Your task to perform on an android device: check out phone information Image 0: 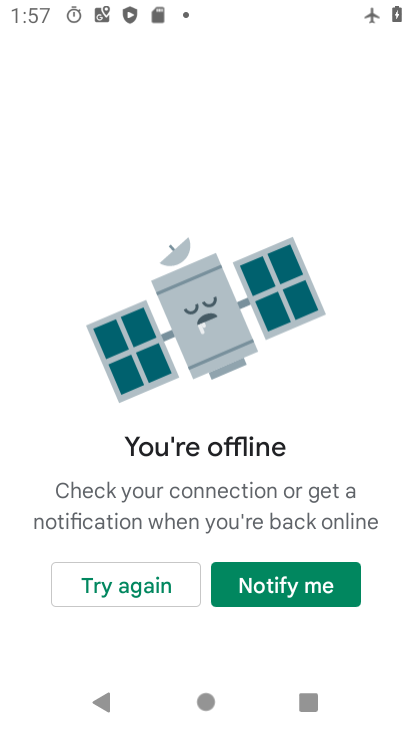
Step 0: press home button
Your task to perform on an android device: check out phone information Image 1: 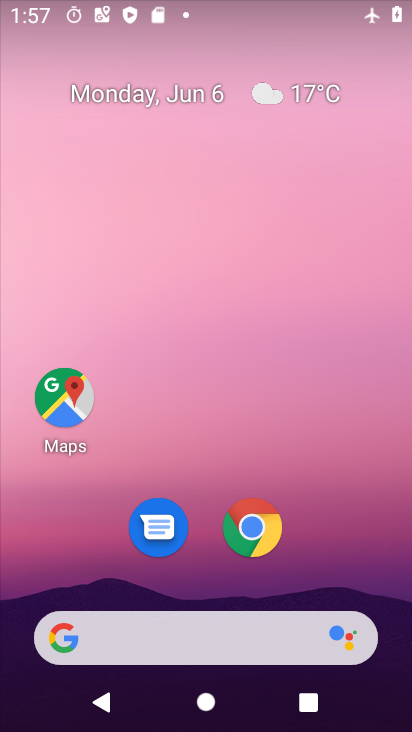
Step 1: drag from (235, 720) to (243, 0)
Your task to perform on an android device: check out phone information Image 2: 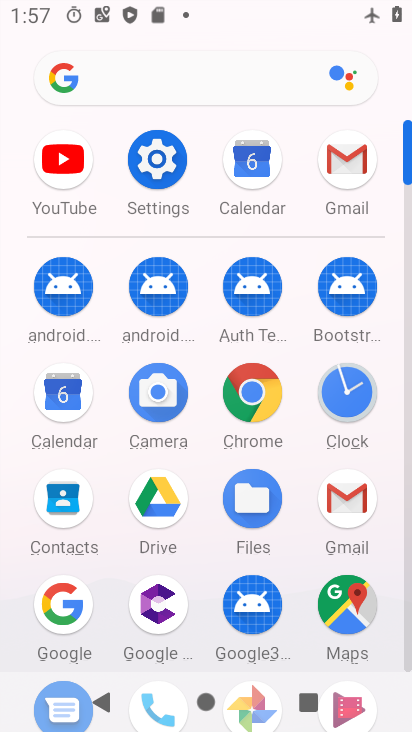
Step 2: click (163, 150)
Your task to perform on an android device: check out phone information Image 3: 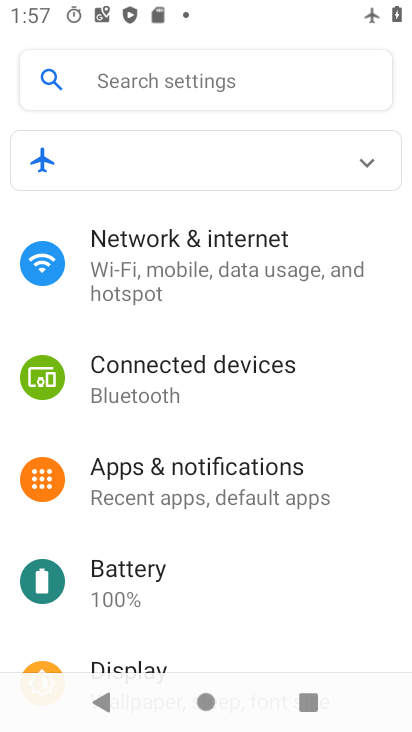
Step 3: drag from (233, 656) to (233, 237)
Your task to perform on an android device: check out phone information Image 4: 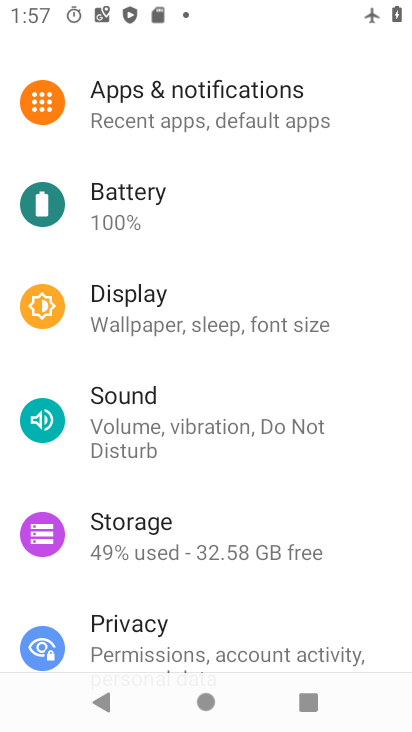
Step 4: drag from (183, 630) to (173, 227)
Your task to perform on an android device: check out phone information Image 5: 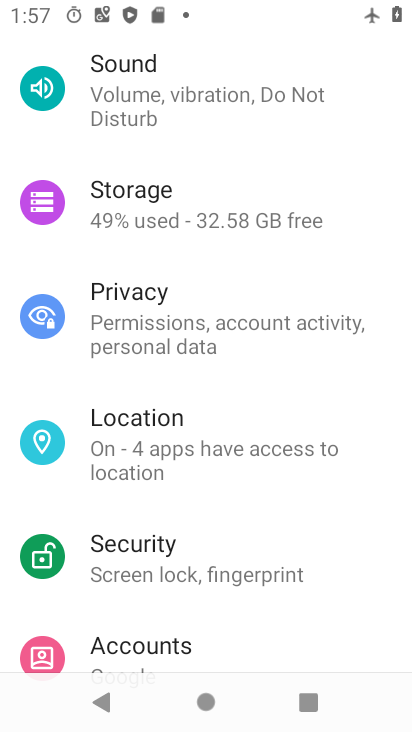
Step 5: drag from (237, 634) to (231, 200)
Your task to perform on an android device: check out phone information Image 6: 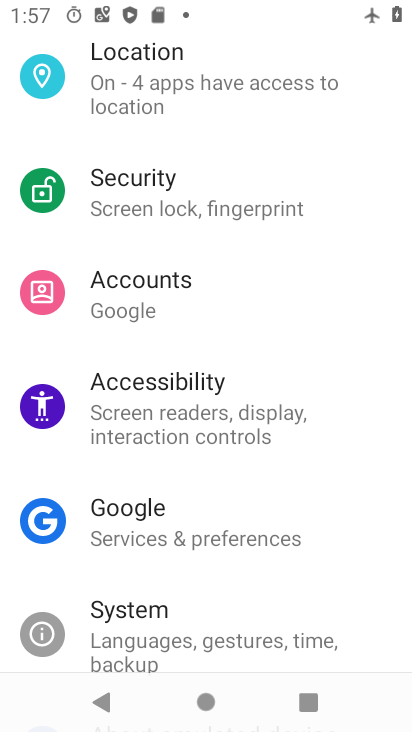
Step 6: drag from (247, 638) to (248, 128)
Your task to perform on an android device: check out phone information Image 7: 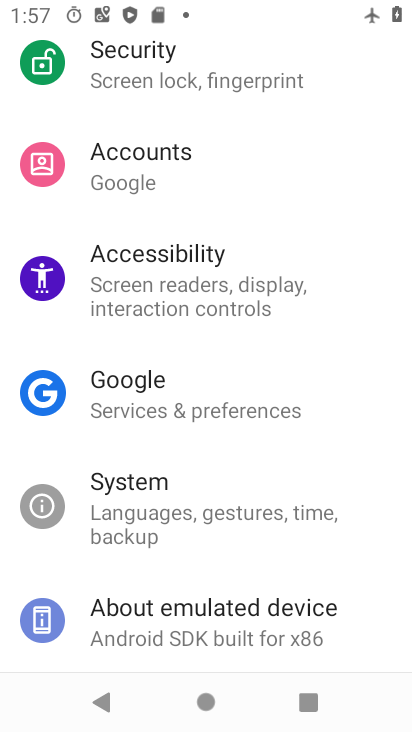
Step 7: click (185, 641)
Your task to perform on an android device: check out phone information Image 8: 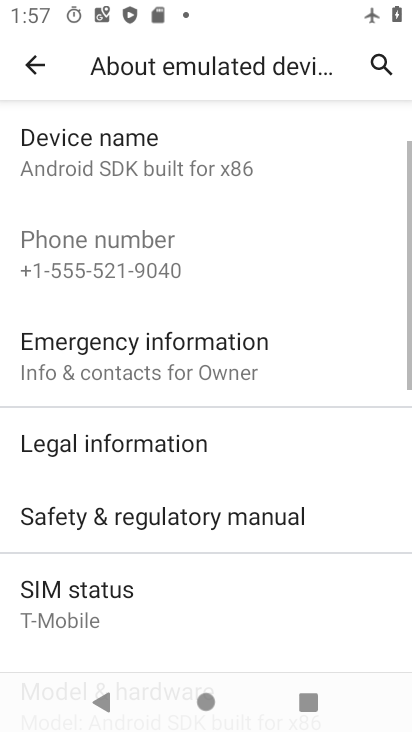
Step 8: task complete